Your task to perform on an android device: check battery use Image 0: 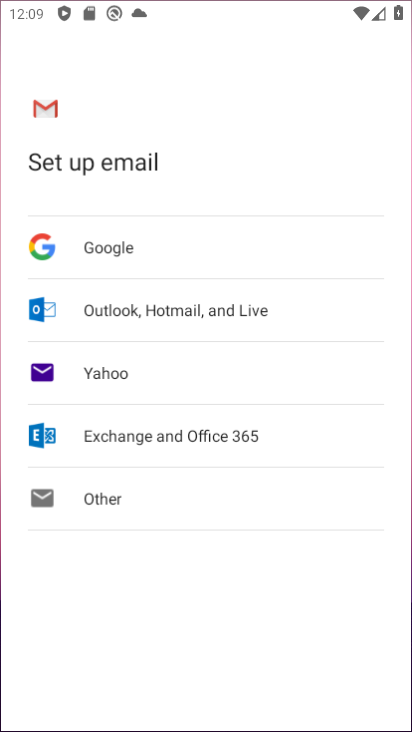
Step 0: drag from (204, 636) to (342, 0)
Your task to perform on an android device: check battery use Image 1: 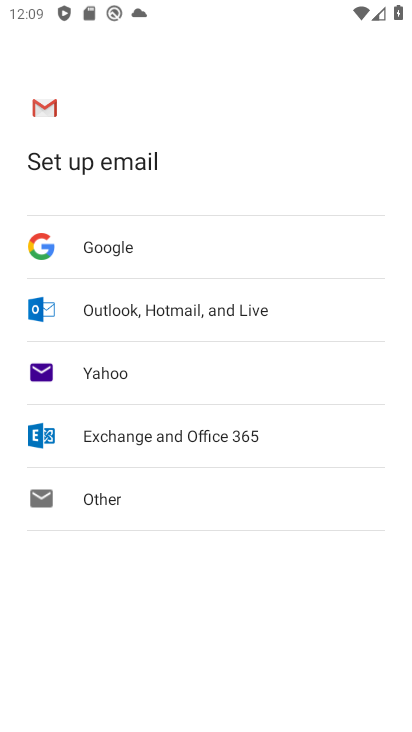
Step 1: press home button
Your task to perform on an android device: check battery use Image 2: 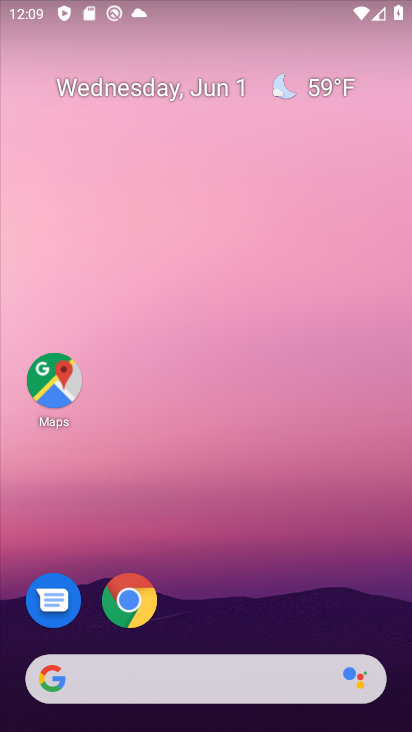
Step 2: drag from (225, 611) to (246, 89)
Your task to perform on an android device: check battery use Image 3: 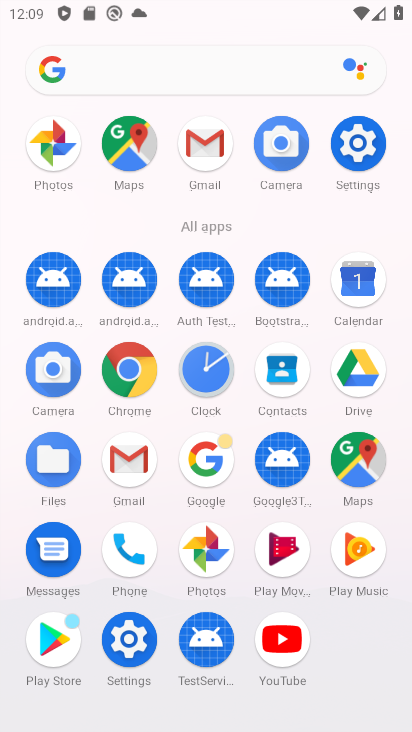
Step 3: drag from (233, 6) to (222, 728)
Your task to perform on an android device: check battery use Image 4: 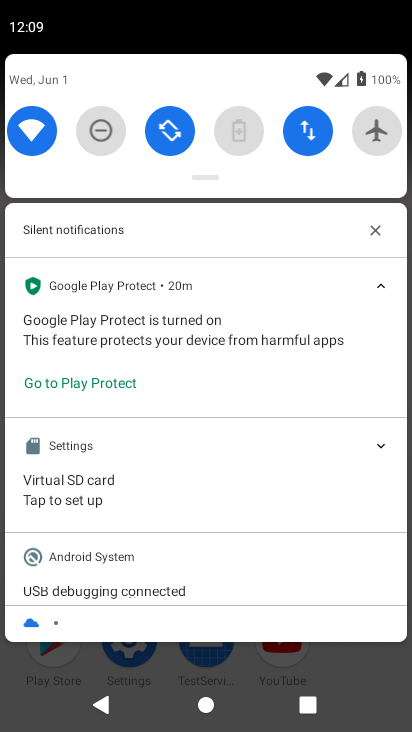
Step 4: click (241, 137)
Your task to perform on an android device: check battery use Image 5: 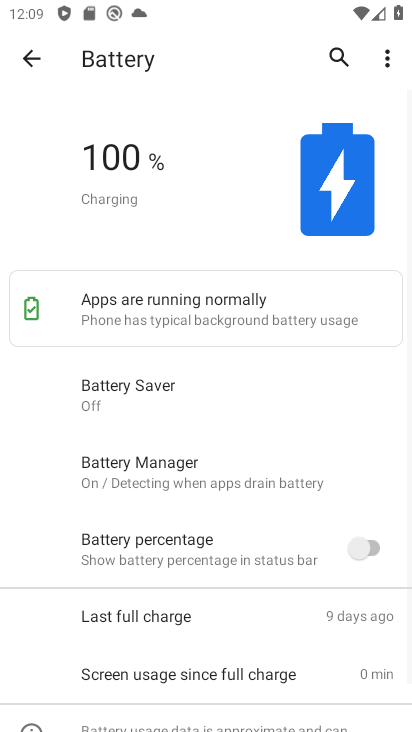
Step 5: task complete